Your task to perform on an android device: Open maps Image 0: 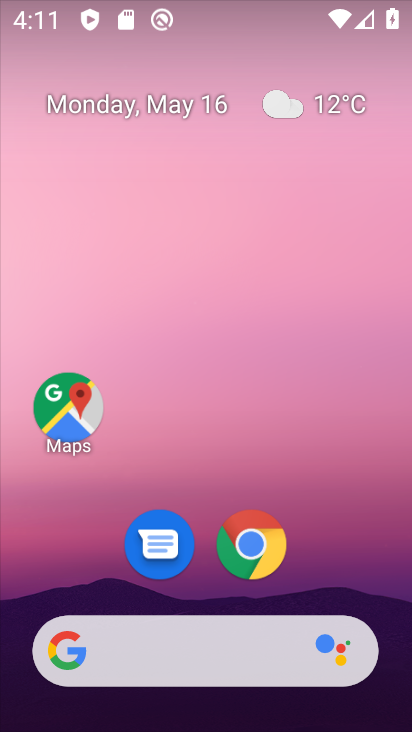
Step 0: click (66, 410)
Your task to perform on an android device: Open maps Image 1: 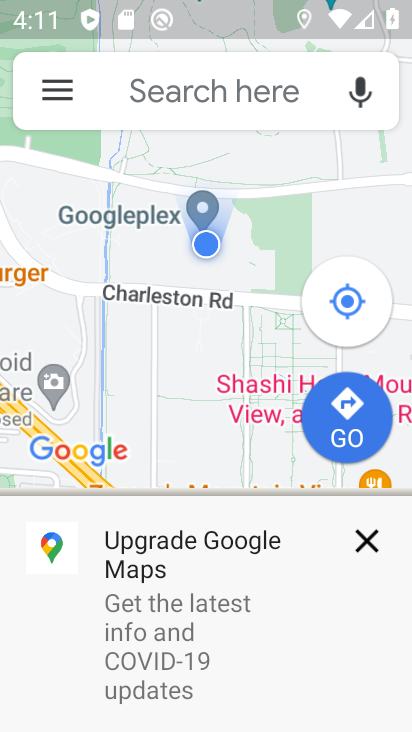
Step 1: task complete